Your task to perform on an android device: Show me popular videos on Youtube Image 0: 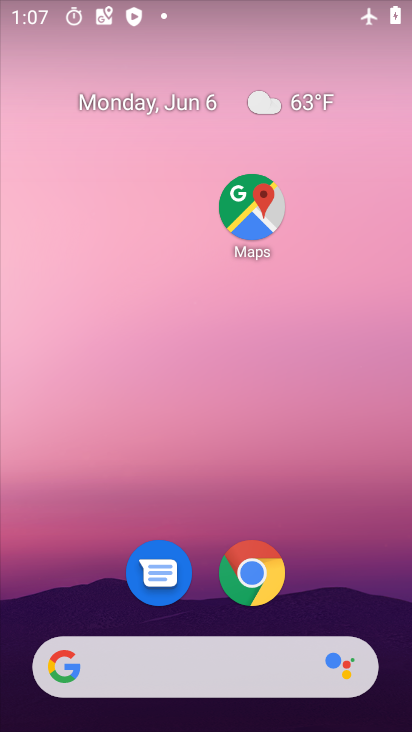
Step 0: drag from (222, 504) to (206, 19)
Your task to perform on an android device: Show me popular videos on Youtube Image 1: 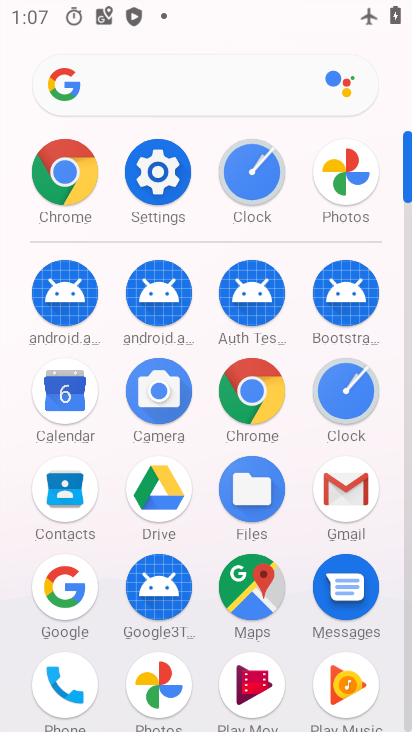
Step 1: drag from (211, 250) to (308, 87)
Your task to perform on an android device: Show me popular videos on Youtube Image 2: 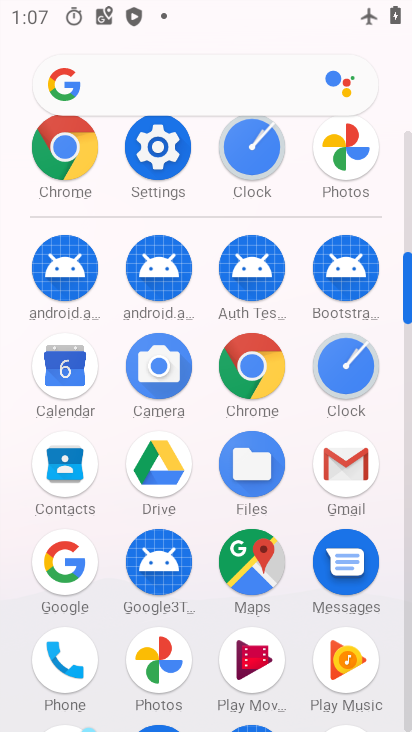
Step 2: click (358, 658)
Your task to perform on an android device: Show me popular videos on Youtube Image 3: 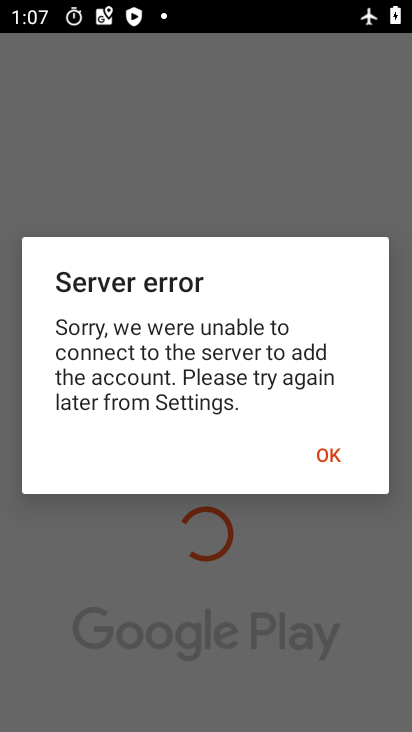
Step 3: task complete